Your task to perform on an android device: Show me productivity apps on the Play Store Image 0: 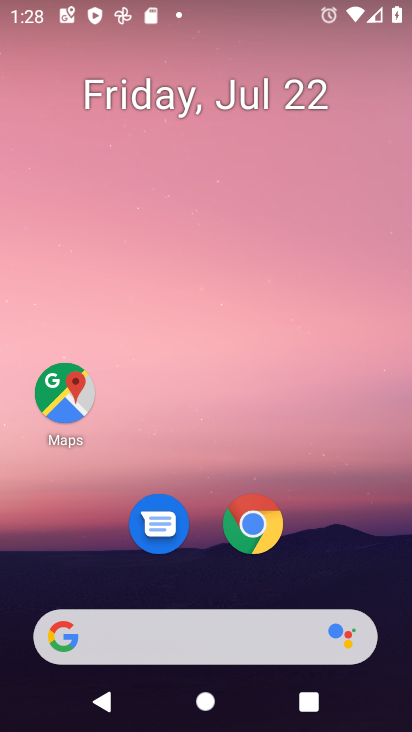
Step 0: press home button
Your task to perform on an android device: Show me productivity apps on the Play Store Image 1: 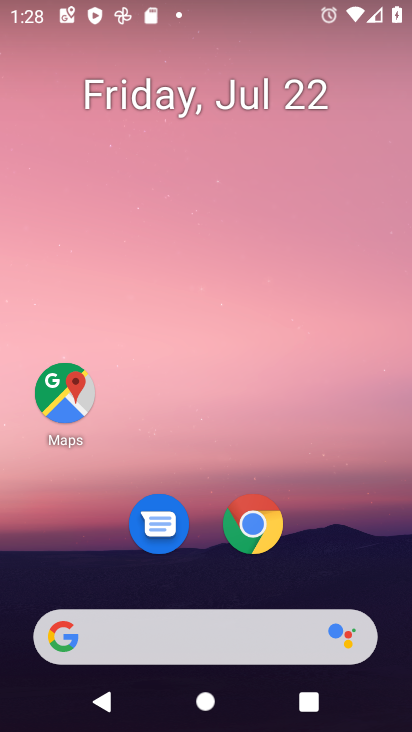
Step 1: drag from (227, 638) to (321, 111)
Your task to perform on an android device: Show me productivity apps on the Play Store Image 2: 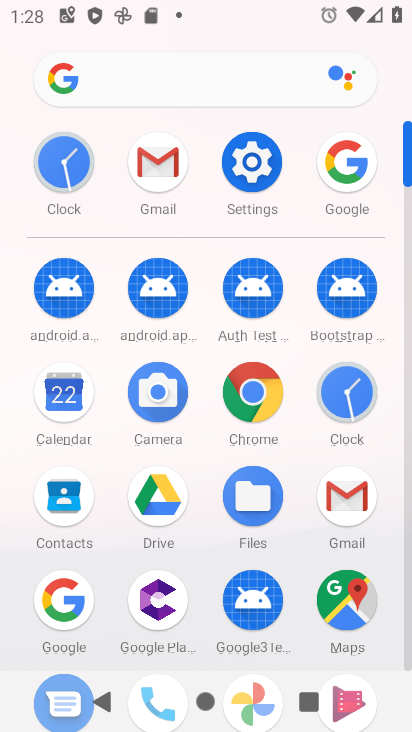
Step 2: drag from (205, 590) to (289, 229)
Your task to perform on an android device: Show me productivity apps on the Play Store Image 3: 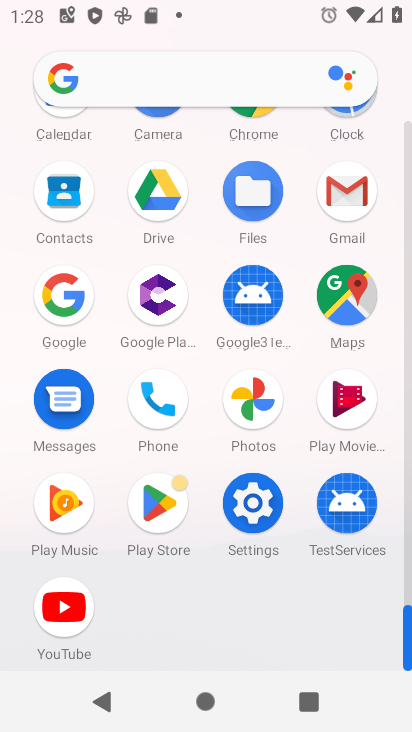
Step 3: click (160, 502)
Your task to perform on an android device: Show me productivity apps on the Play Store Image 4: 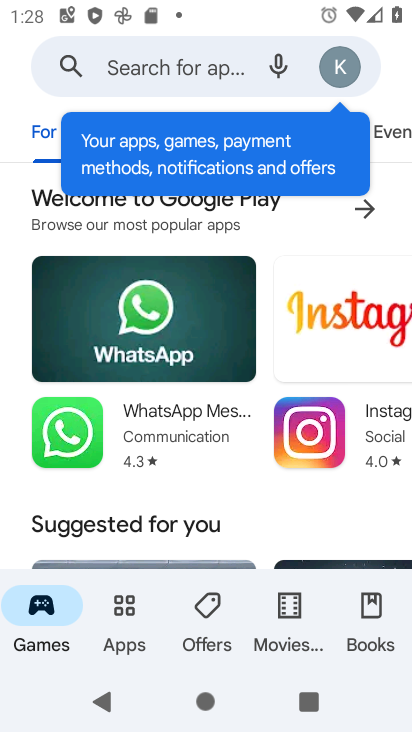
Step 4: click (118, 618)
Your task to perform on an android device: Show me productivity apps on the Play Store Image 5: 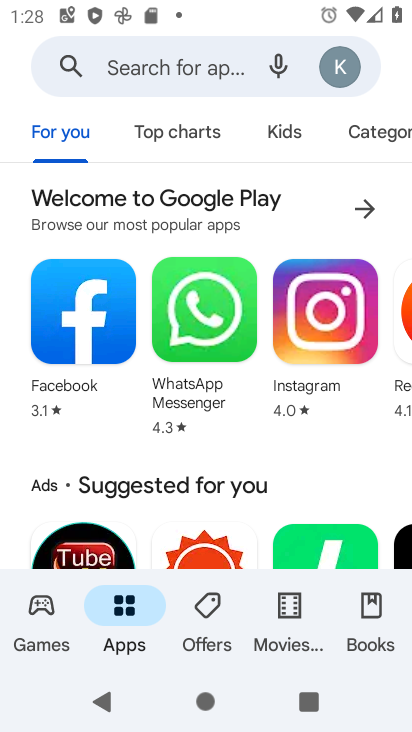
Step 5: click (353, 133)
Your task to perform on an android device: Show me productivity apps on the Play Store Image 6: 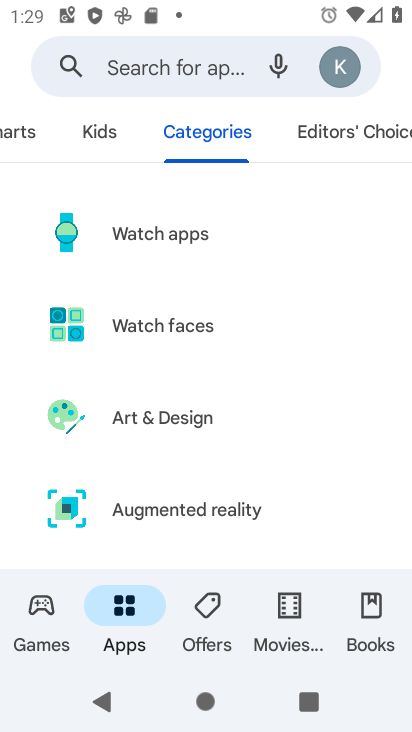
Step 6: drag from (175, 530) to (283, 97)
Your task to perform on an android device: Show me productivity apps on the Play Store Image 7: 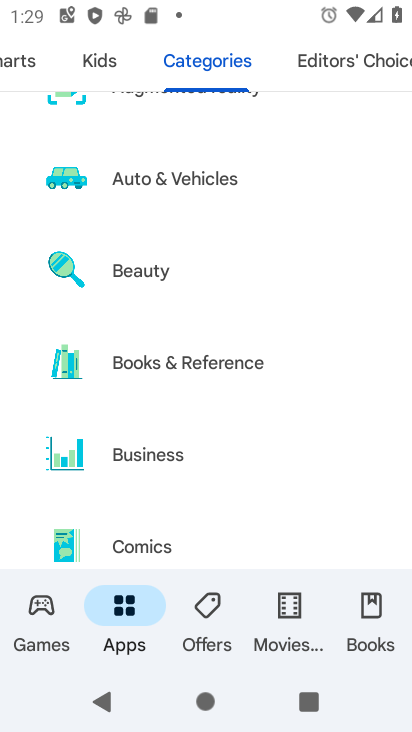
Step 7: drag from (242, 529) to (397, 76)
Your task to perform on an android device: Show me productivity apps on the Play Store Image 8: 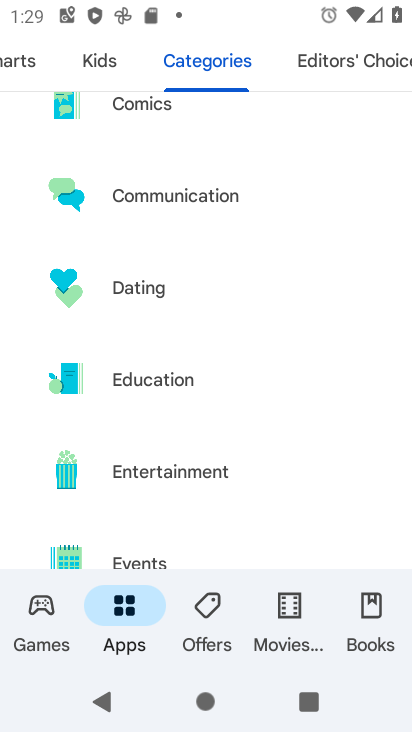
Step 8: drag from (273, 504) to (329, 62)
Your task to perform on an android device: Show me productivity apps on the Play Store Image 9: 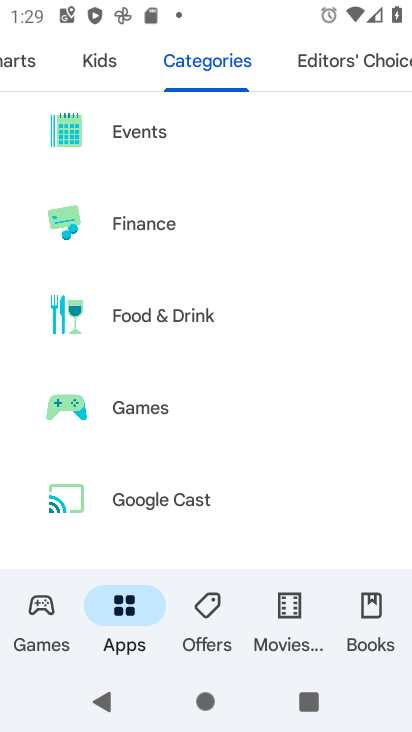
Step 9: drag from (225, 464) to (321, 2)
Your task to perform on an android device: Show me productivity apps on the Play Store Image 10: 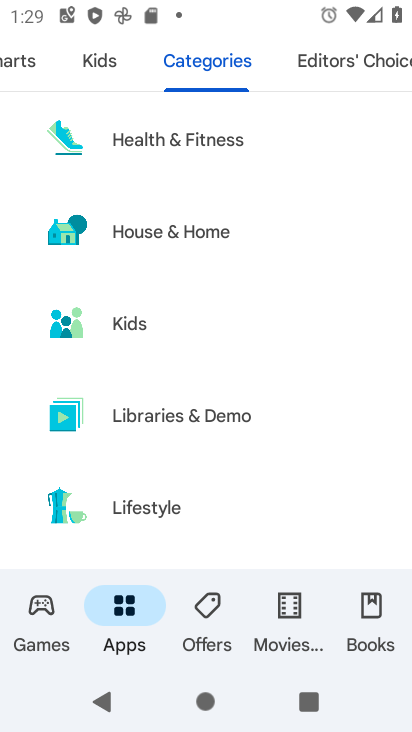
Step 10: drag from (234, 539) to (337, 114)
Your task to perform on an android device: Show me productivity apps on the Play Store Image 11: 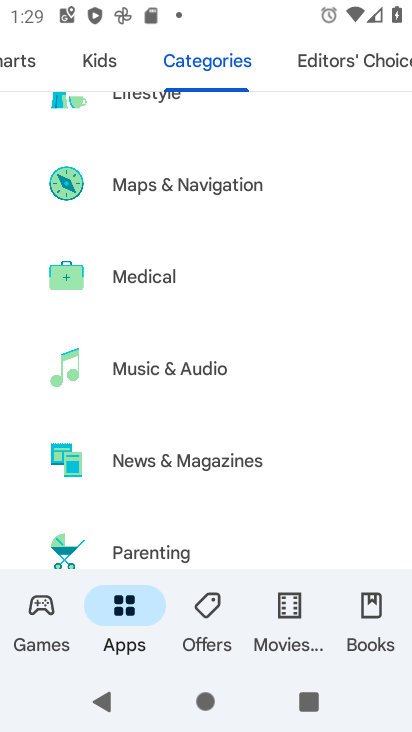
Step 11: drag from (265, 489) to (313, 144)
Your task to perform on an android device: Show me productivity apps on the Play Store Image 12: 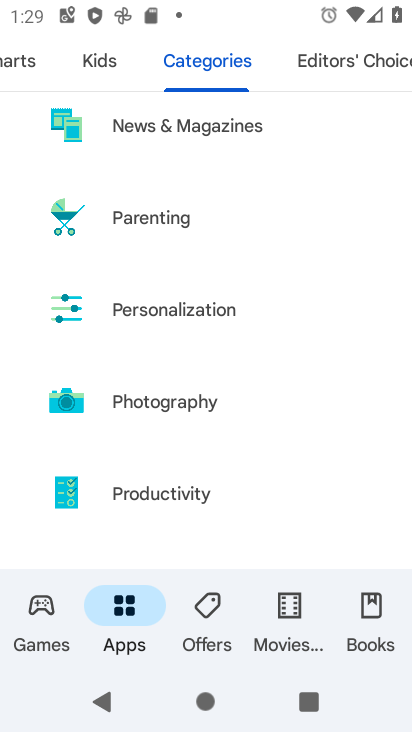
Step 12: click (203, 494)
Your task to perform on an android device: Show me productivity apps on the Play Store Image 13: 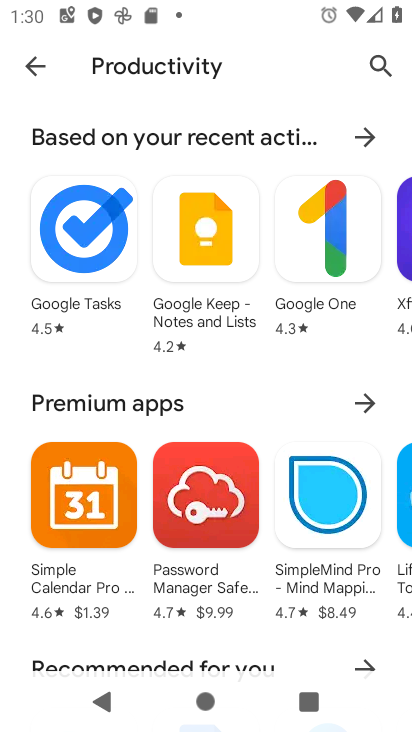
Step 13: task complete